Your task to perform on an android device: Open settings Image 0: 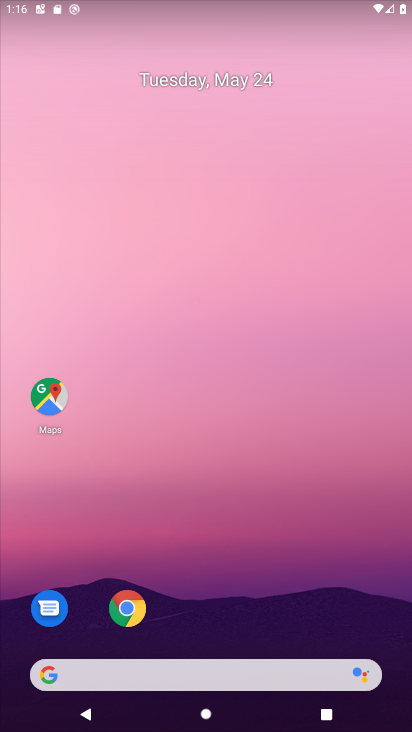
Step 0: drag from (231, 618) to (279, 95)
Your task to perform on an android device: Open settings Image 1: 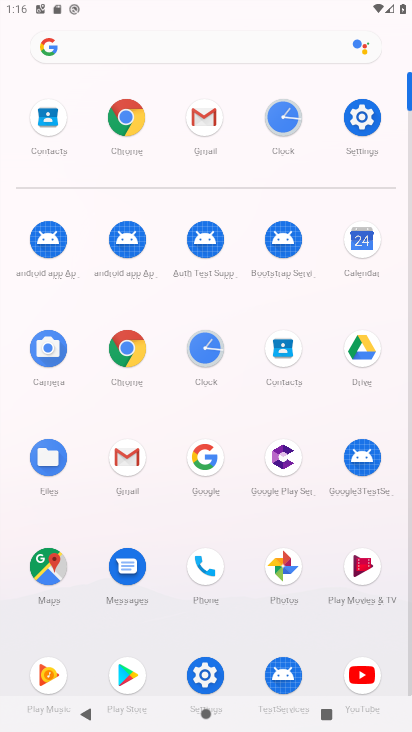
Step 1: click (358, 140)
Your task to perform on an android device: Open settings Image 2: 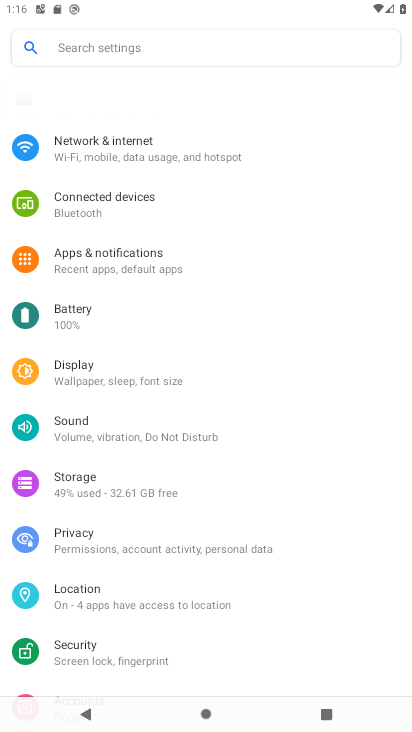
Step 2: task complete